Your task to perform on an android device: Go to Android settings Image 0: 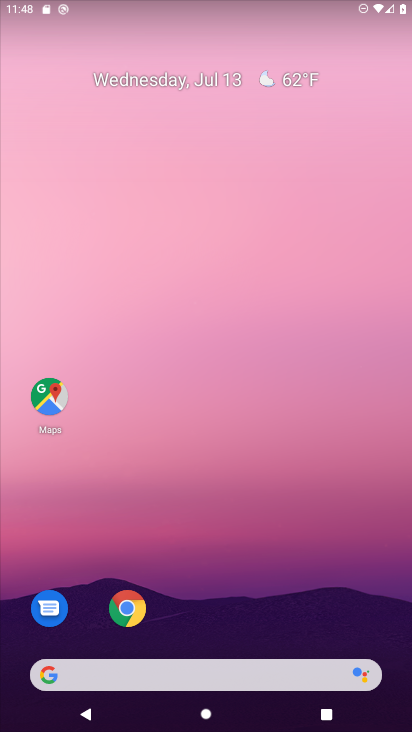
Step 0: drag from (227, 701) to (213, 182)
Your task to perform on an android device: Go to Android settings Image 1: 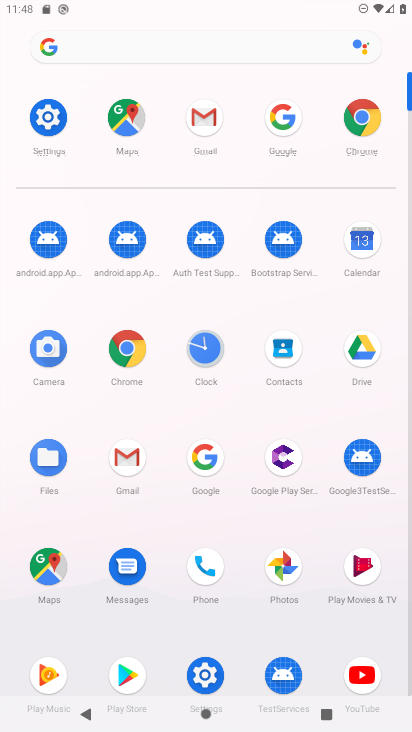
Step 1: click (51, 120)
Your task to perform on an android device: Go to Android settings Image 2: 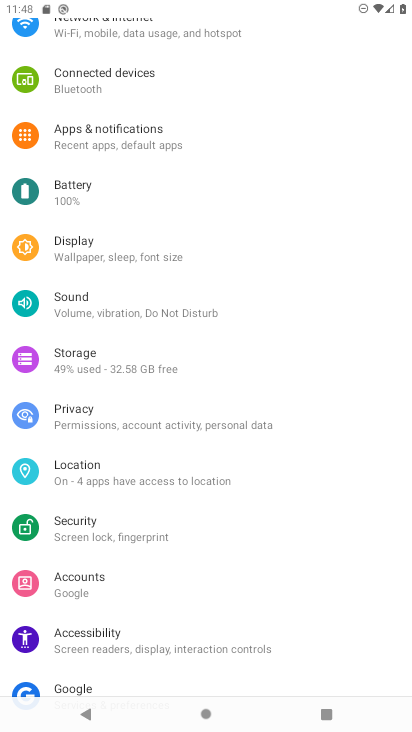
Step 2: task complete